Your task to perform on an android device: Open Wikipedia Image 0: 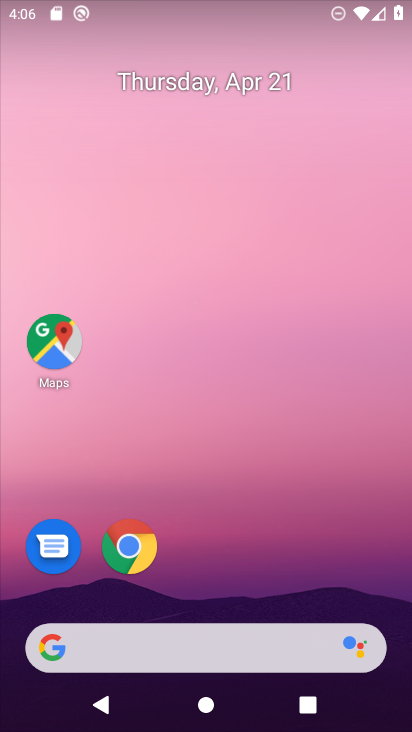
Step 0: click (146, 541)
Your task to perform on an android device: Open Wikipedia Image 1: 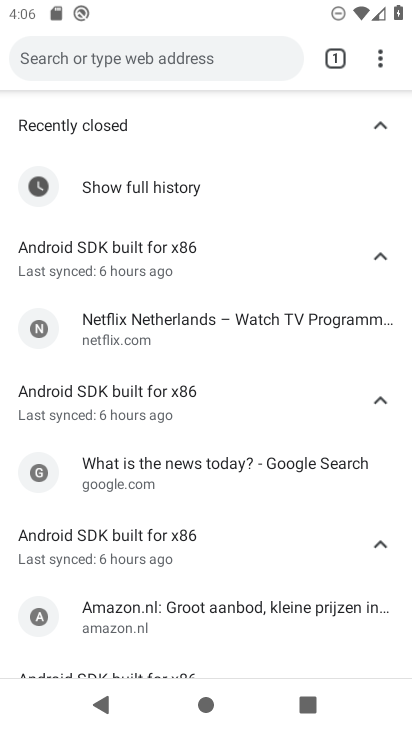
Step 1: click (336, 71)
Your task to perform on an android device: Open Wikipedia Image 2: 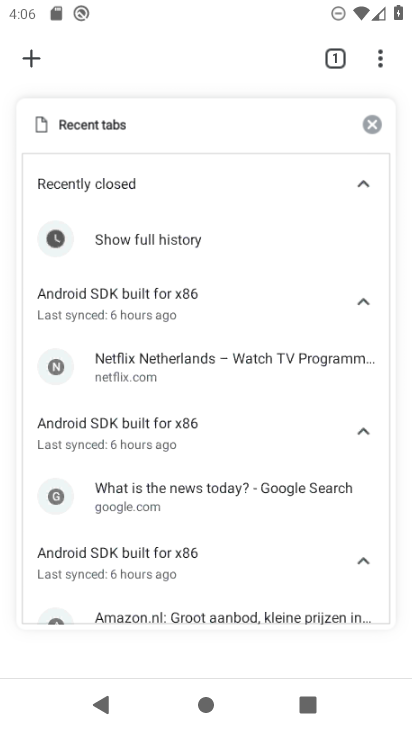
Step 2: click (50, 72)
Your task to perform on an android device: Open Wikipedia Image 3: 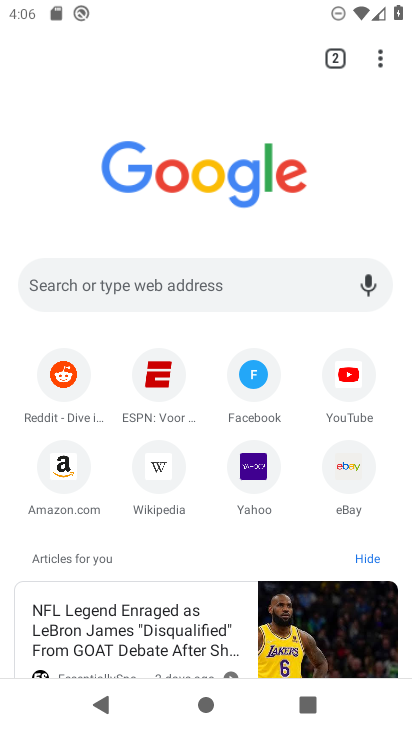
Step 3: click (166, 453)
Your task to perform on an android device: Open Wikipedia Image 4: 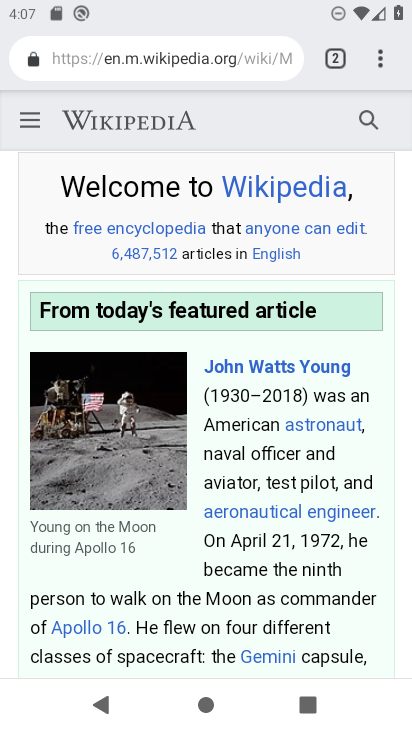
Step 4: task complete